Your task to perform on an android device: turn notification dots off Image 0: 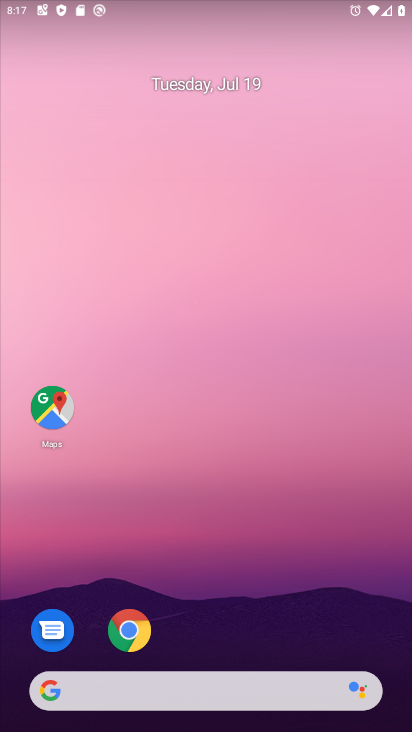
Step 0: drag from (196, 511) to (232, 95)
Your task to perform on an android device: turn notification dots off Image 1: 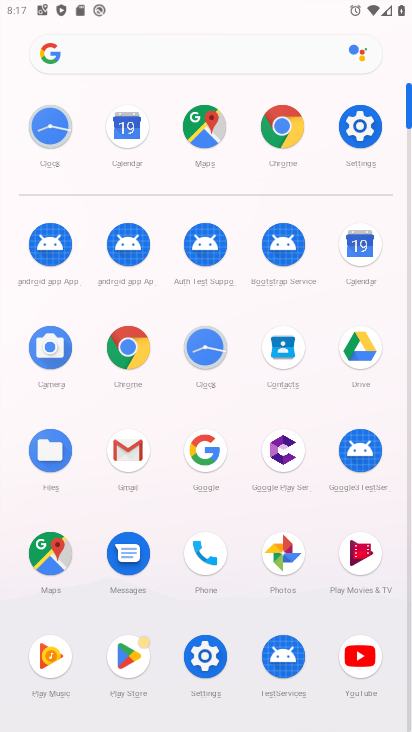
Step 1: click (359, 130)
Your task to perform on an android device: turn notification dots off Image 2: 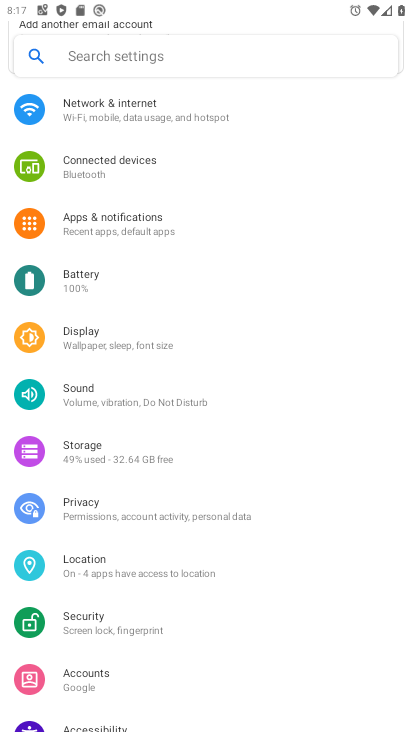
Step 2: click (92, 243)
Your task to perform on an android device: turn notification dots off Image 3: 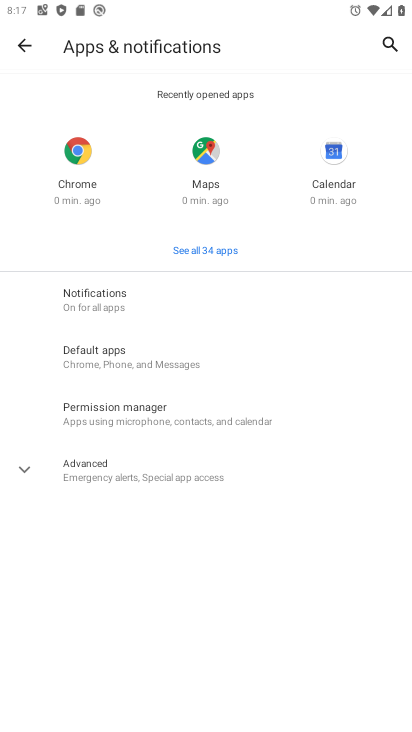
Step 3: click (89, 311)
Your task to perform on an android device: turn notification dots off Image 4: 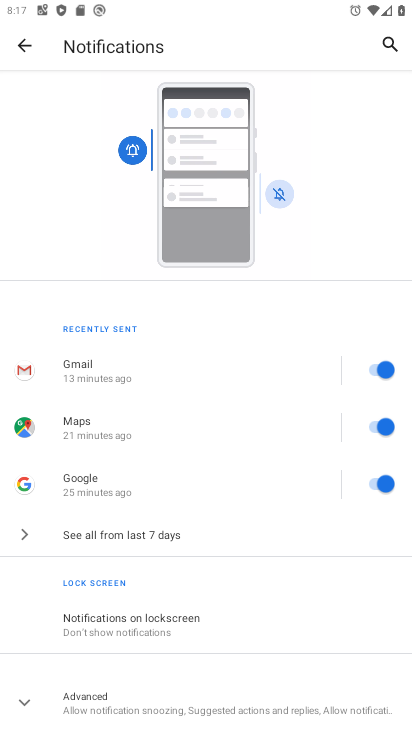
Step 4: drag from (136, 632) to (146, 352)
Your task to perform on an android device: turn notification dots off Image 5: 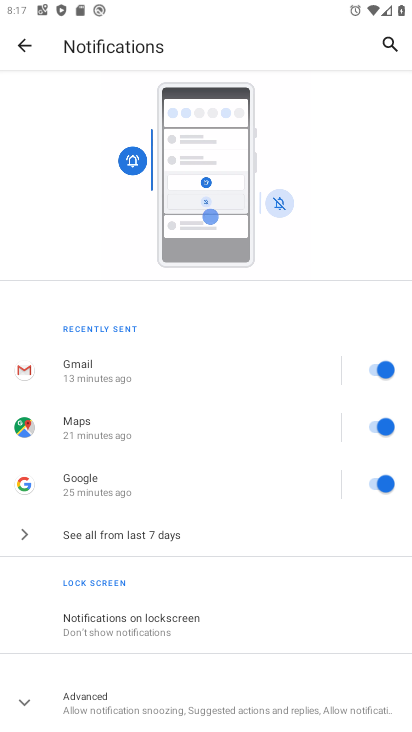
Step 5: click (68, 700)
Your task to perform on an android device: turn notification dots off Image 6: 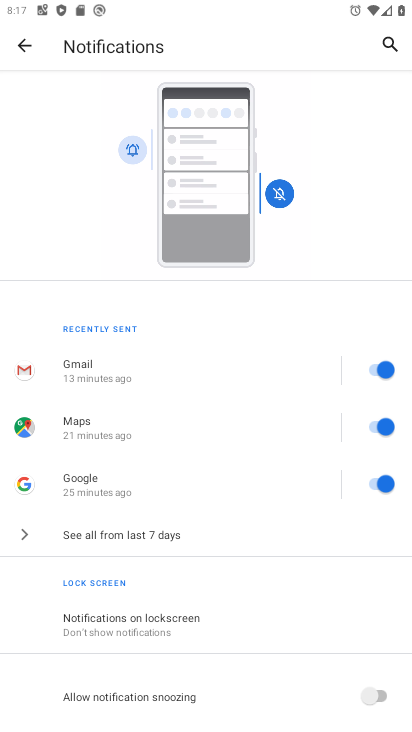
Step 6: task complete